Your task to perform on an android device: turn on notifications settings in the gmail app Image 0: 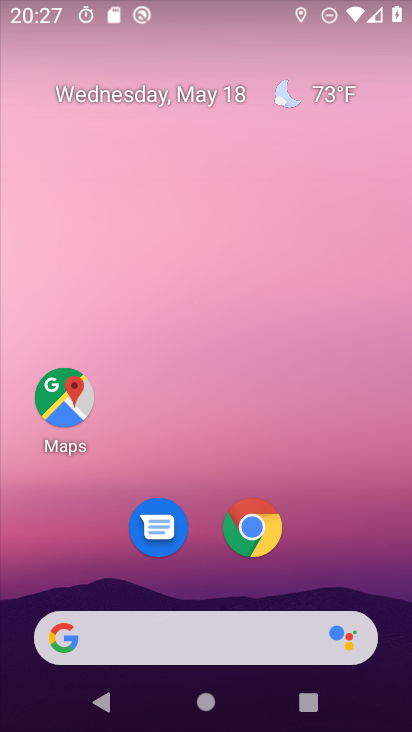
Step 0: drag from (381, 628) to (386, 238)
Your task to perform on an android device: turn on notifications settings in the gmail app Image 1: 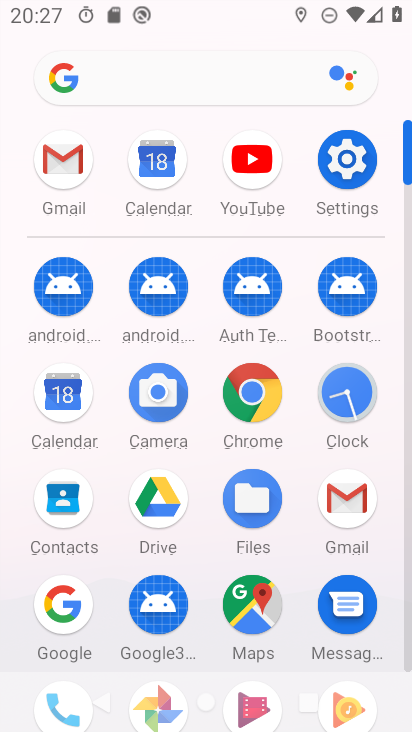
Step 1: click (335, 506)
Your task to perform on an android device: turn on notifications settings in the gmail app Image 2: 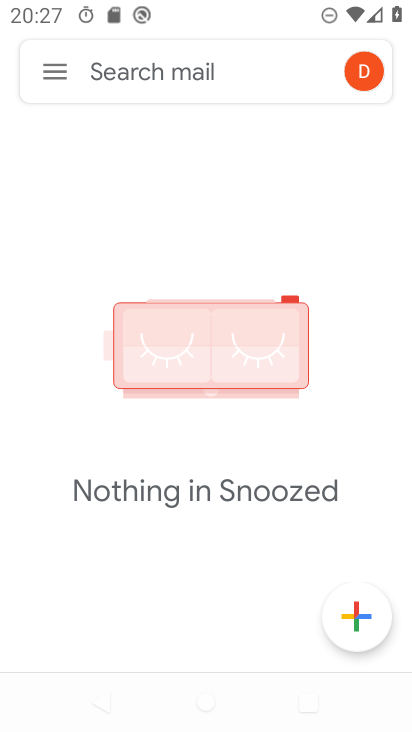
Step 2: click (45, 59)
Your task to perform on an android device: turn on notifications settings in the gmail app Image 3: 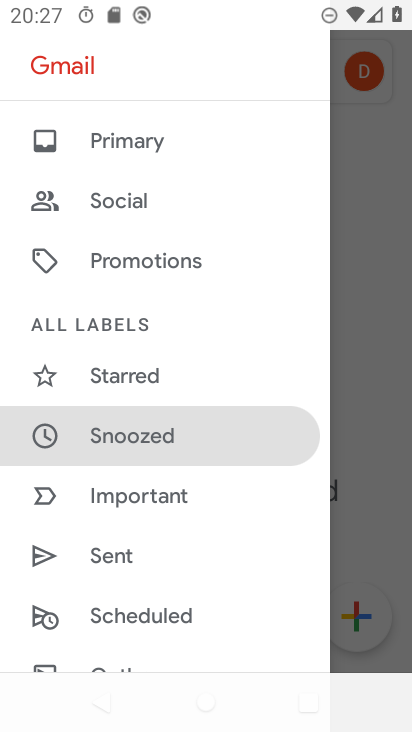
Step 3: drag from (214, 612) to (235, 262)
Your task to perform on an android device: turn on notifications settings in the gmail app Image 4: 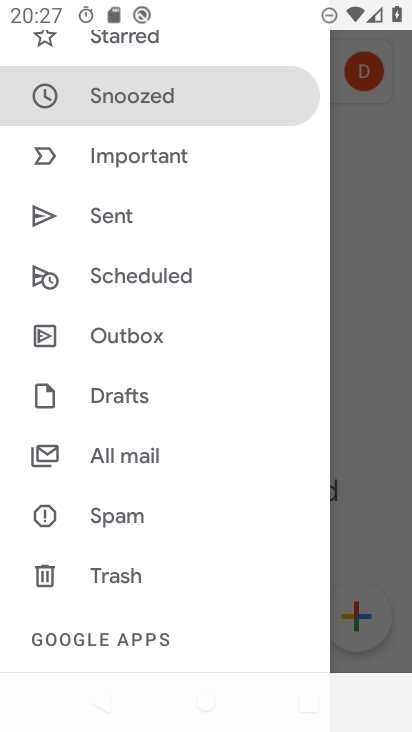
Step 4: drag from (215, 625) to (231, 336)
Your task to perform on an android device: turn on notifications settings in the gmail app Image 5: 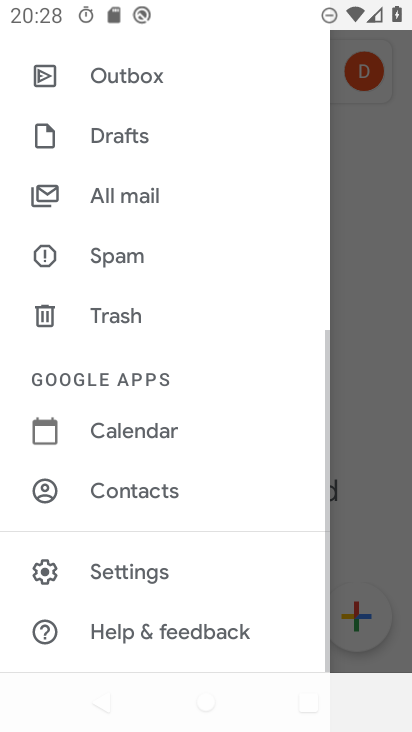
Step 5: drag from (230, 559) to (238, 388)
Your task to perform on an android device: turn on notifications settings in the gmail app Image 6: 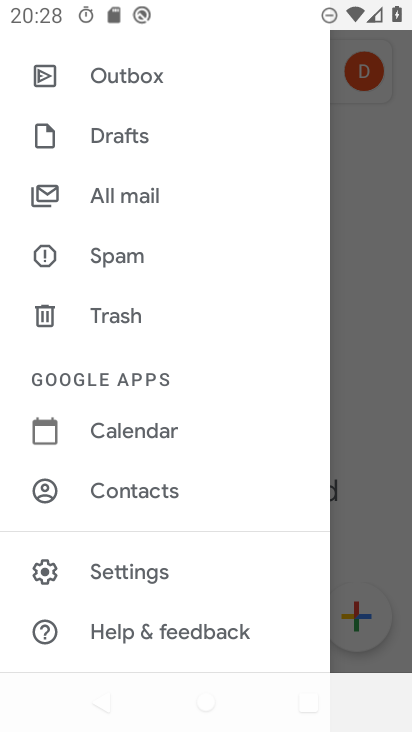
Step 6: click (139, 568)
Your task to perform on an android device: turn on notifications settings in the gmail app Image 7: 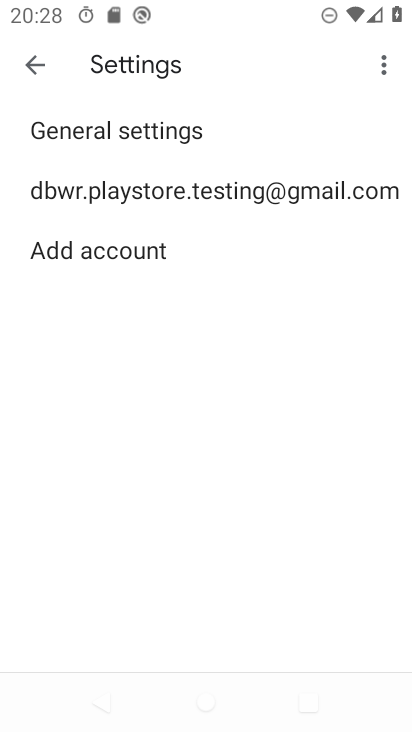
Step 7: click (129, 140)
Your task to perform on an android device: turn on notifications settings in the gmail app Image 8: 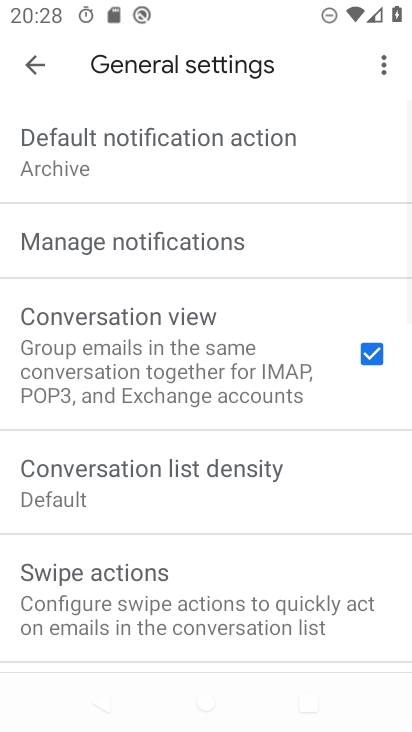
Step 8: click (158, 249)
Your task to perform on an android device: turn on notifications settings in the gmail app Image 9: 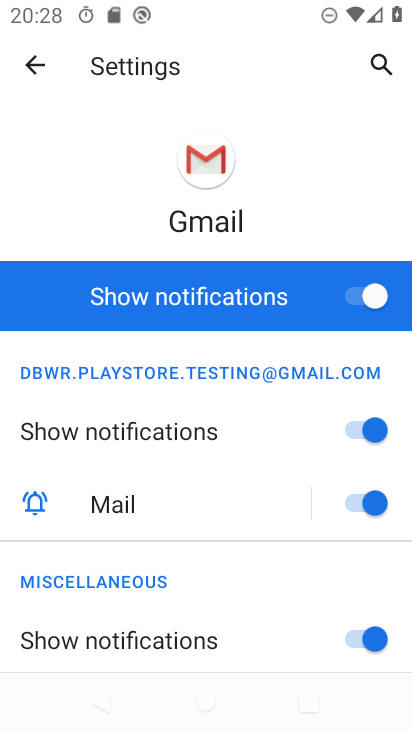
Step 9: task complete